Your task to perform on an android device: uninstall "HBO Max: Stream TV & Movies" Image 0: 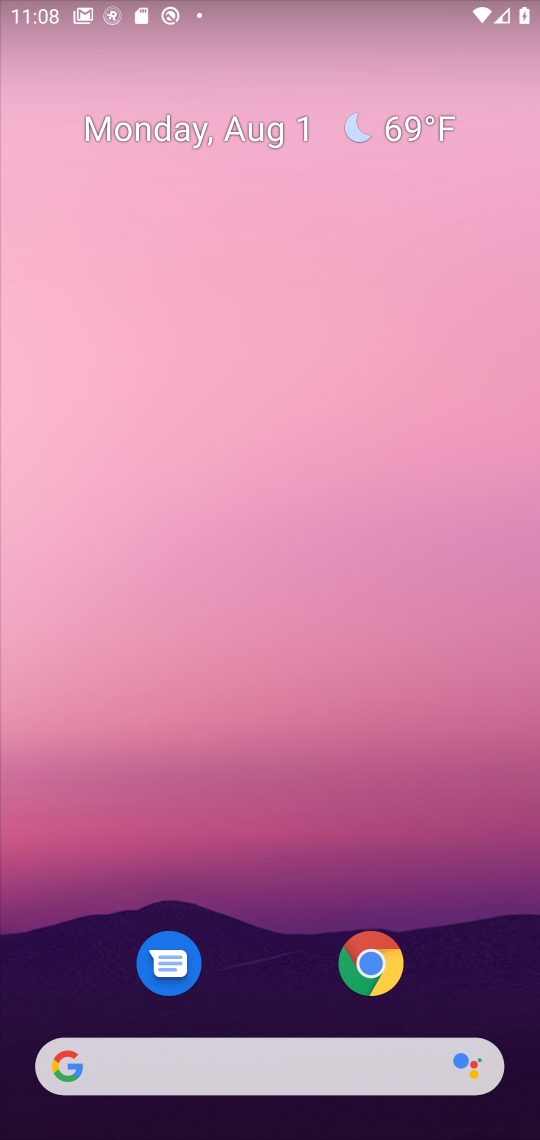
Step 0: drag from (272, 774) to (333, 326)
Your task to perform on an android device: uninstall "HBO Max: Stream TV & Movies" Image 1: 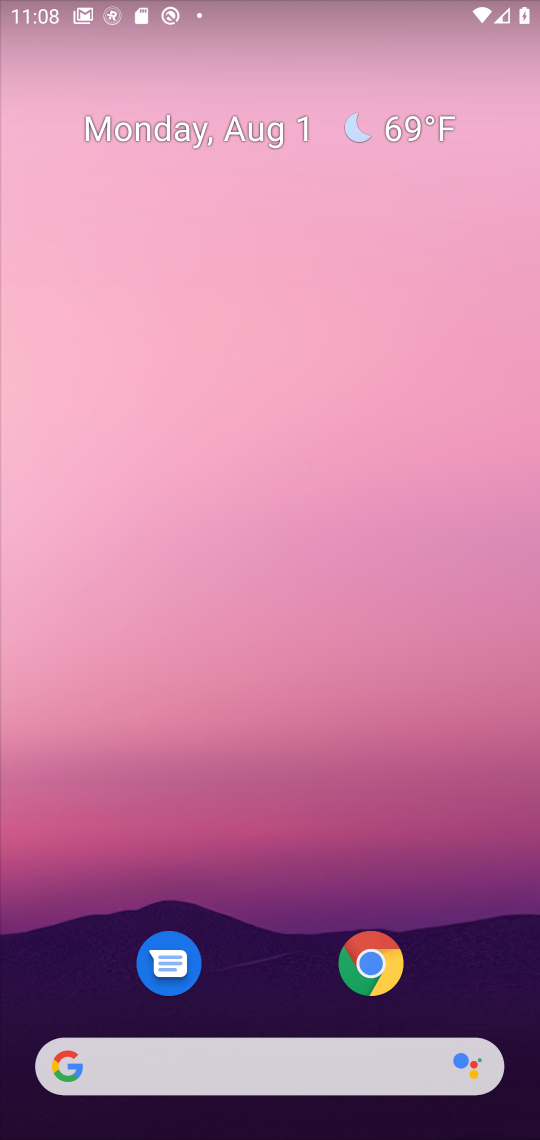
Step 1: drag from (293, 713) to (310, 52)
Your task to perform on an android device: uninstall "HBO Max: Stream TV & Movies" Image 2: 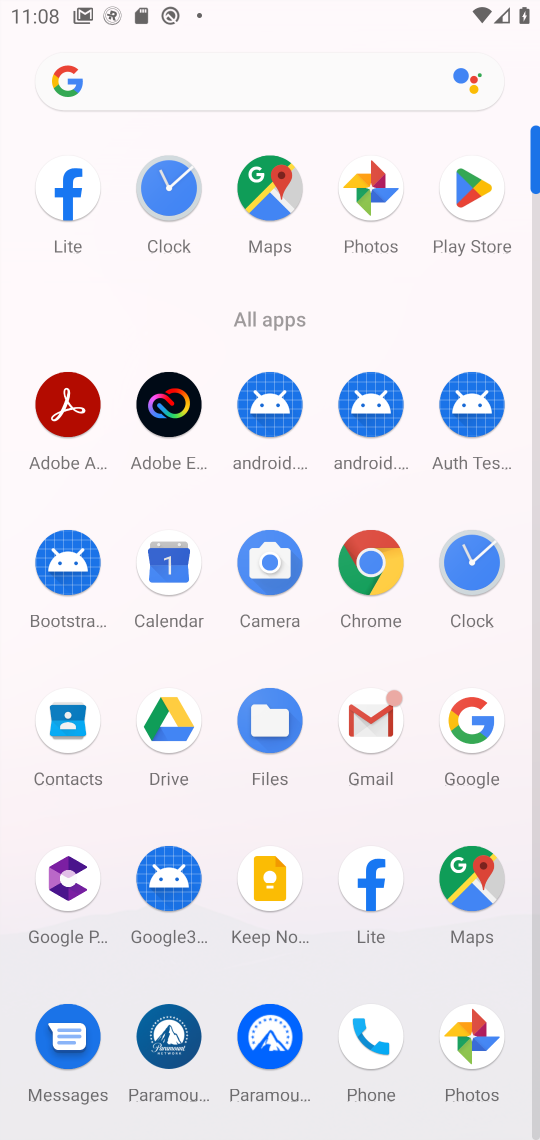
Step 2: click (476, 184)
Your task to perform on an android device: uninstall "HBO Max: Stream TV & Movies" Image 3: 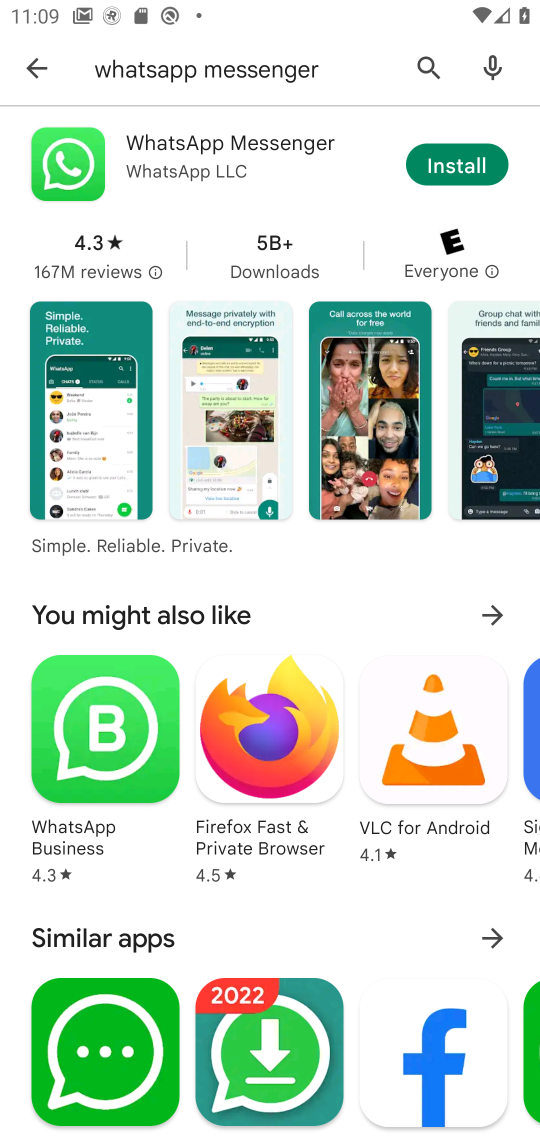
Step 3: click (171, 67)
Your task to perform on an android device: uninstall "HBO Max: Stream TV & Movies" Image 4: 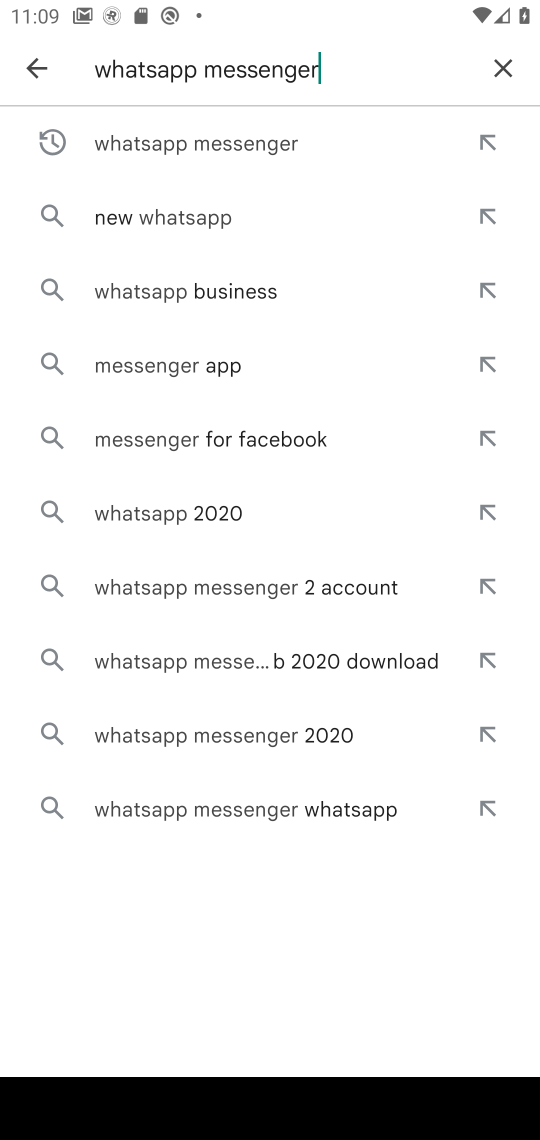
Step 4: click (501, 65)
Your task to perform on an android device: uninstall "HBO Max: Stream TV & Movies" Image 5: 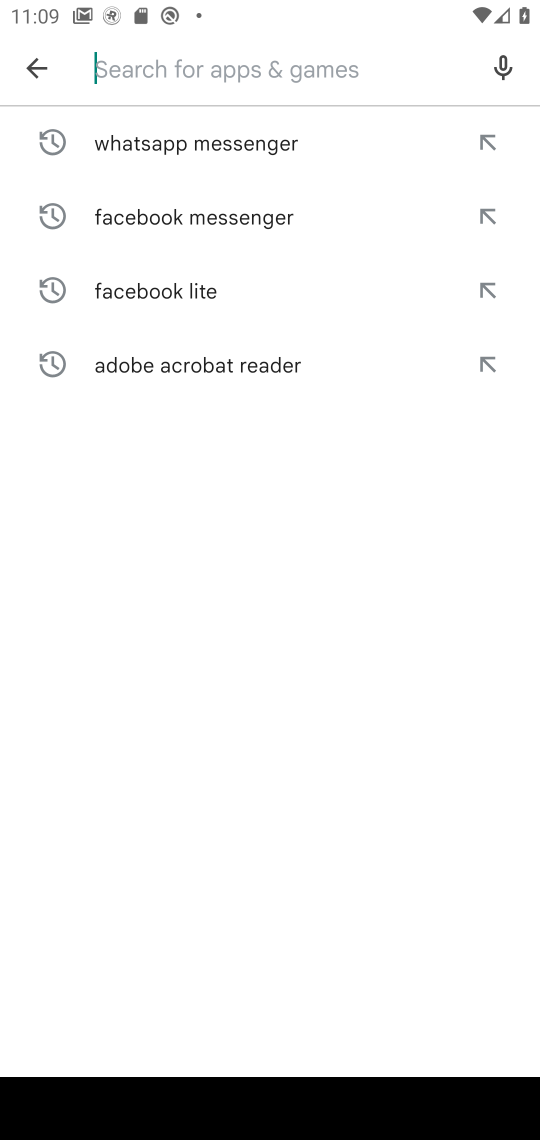
Step 5: type "HBO Max"
Your task to perform on an android device: uninstall "HBO Max: Stream TV & Movies" Image 6: 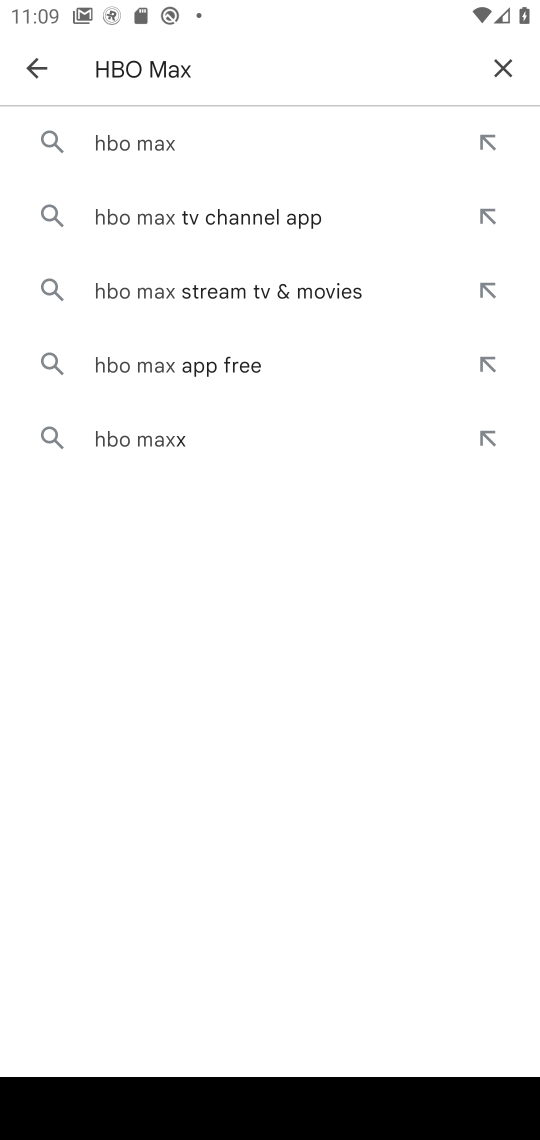
Step 6: click (266, 283)
Your task to perform on an android device: uninstall "HBO Max: Stream TV & Movies" Image 7: 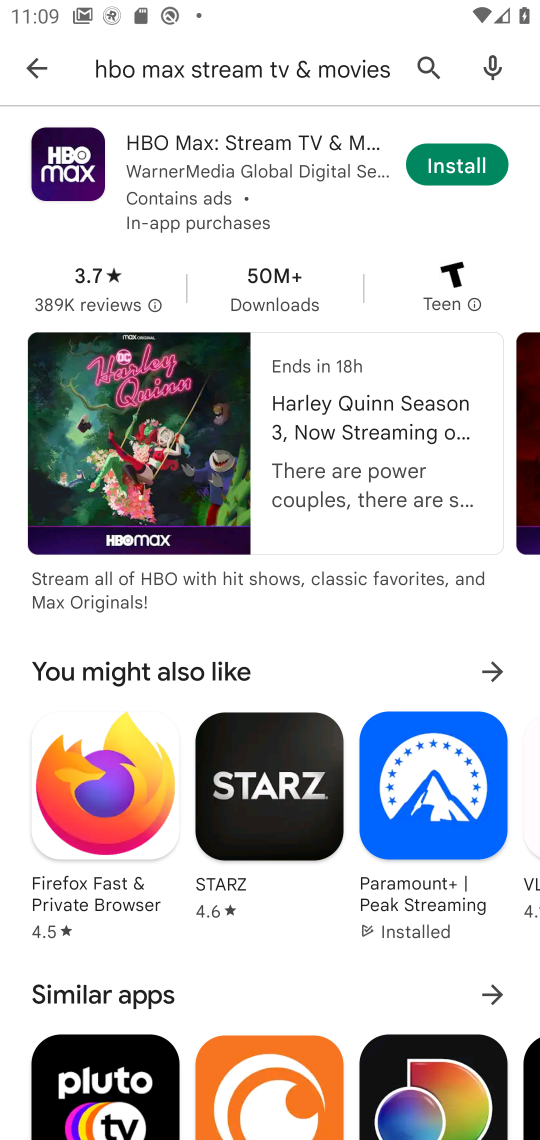
Step 7: click (62, 152)
Your task to perform on an android device: uninstall "HBO Max: Stream TV & Movies" Image 8: 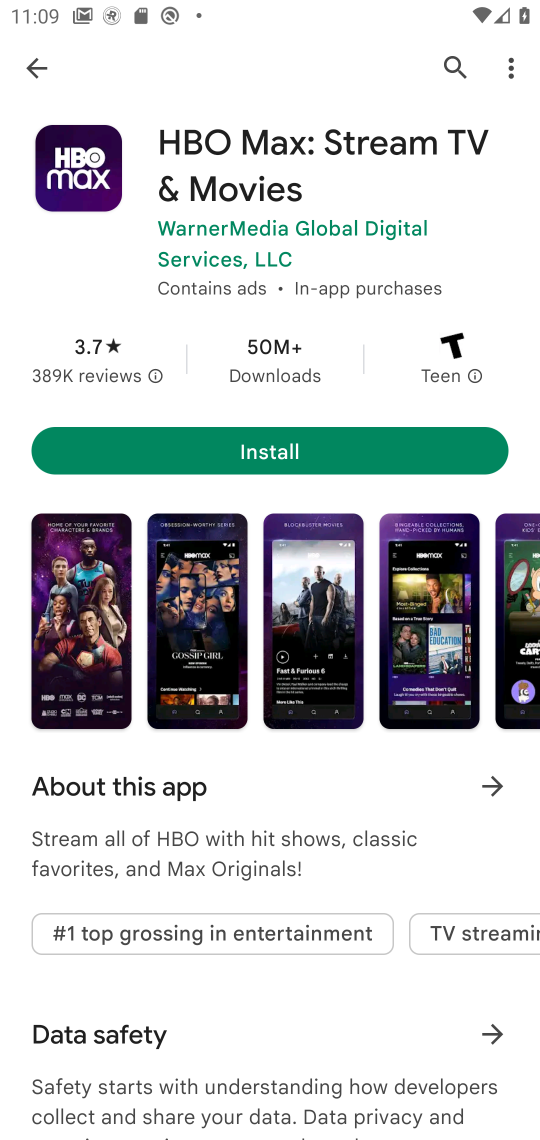
Step 8: task complete